Your task to perform on an android device: Go to network settings Image 0: 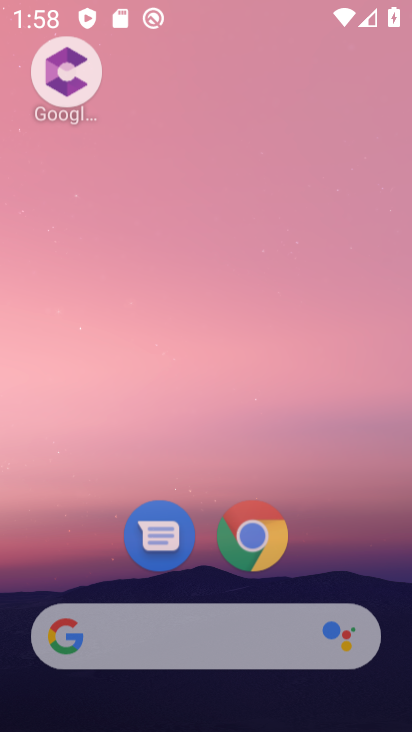
Step 0: press back button
Your task to perform on an android device: Go to network settings Image 1: 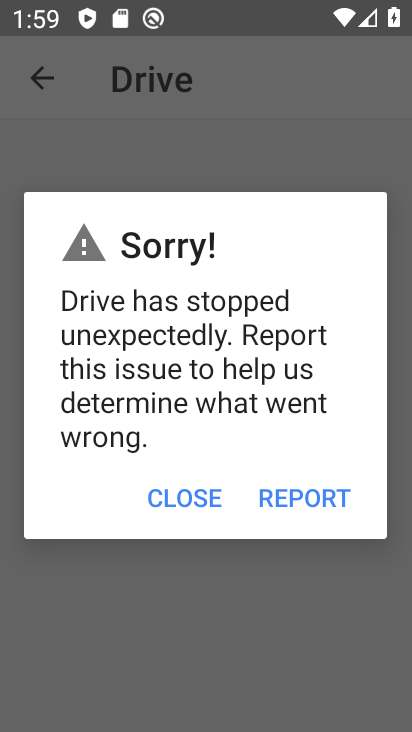
Step 1: press back button
Your task to perform on an android device: Go to network settings Image 2: 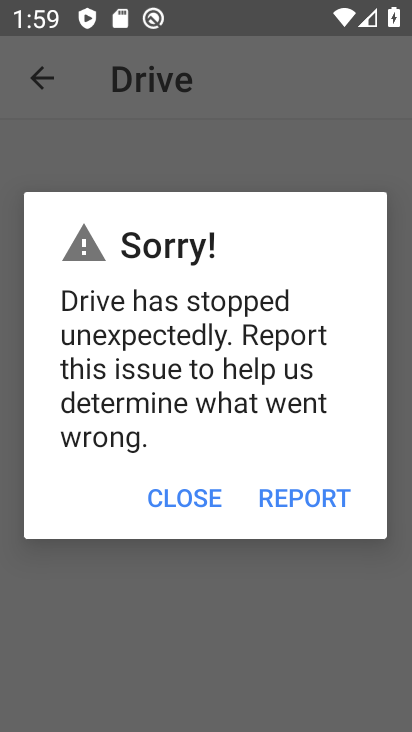
Step 2: press home button
Your task to perform on an android device: Go to network settings Image 3: 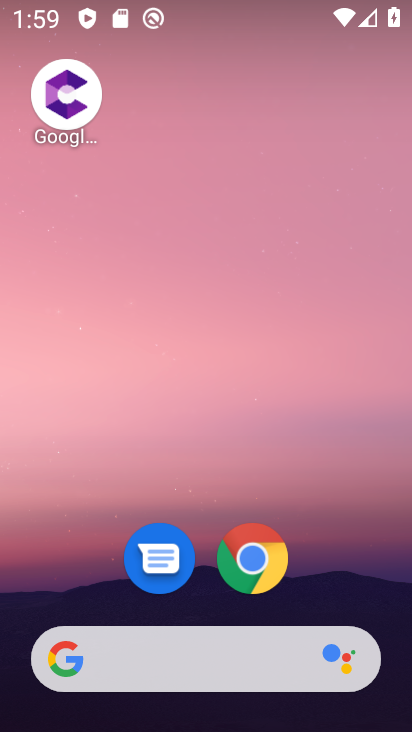
Step 3: drag from (83, 589) to (141, 49)
Your task to perform on an android device: Go to network settings Image 4: 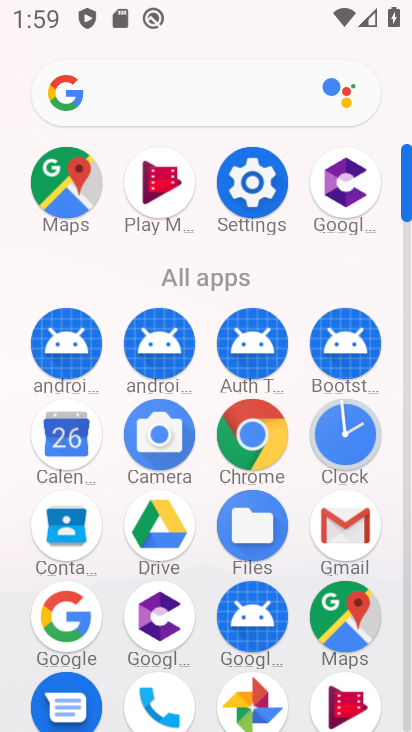
Step 4: click (252, 181)
Your task to perform on an android device: Go to network settings Image 5: 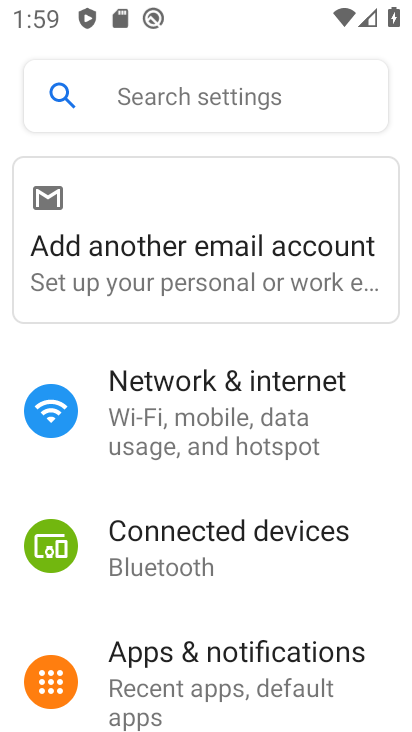
Step 5: click (206, 431)
Your task to perform on an android device: Go to network settings Image 6: 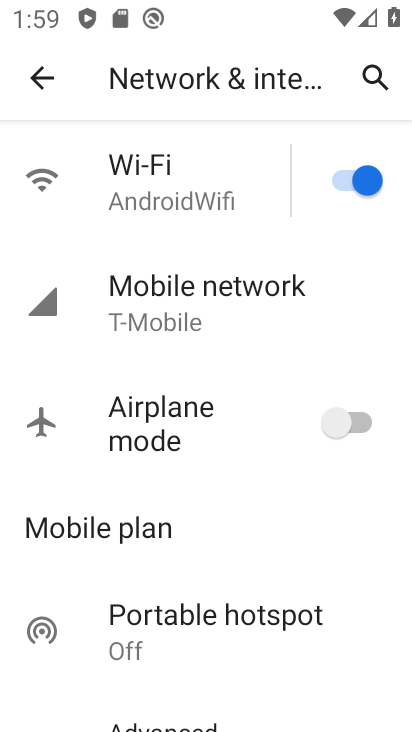
Step 6: task complete